Your task to perform on an android device: Is it going to rain today? Image 0: 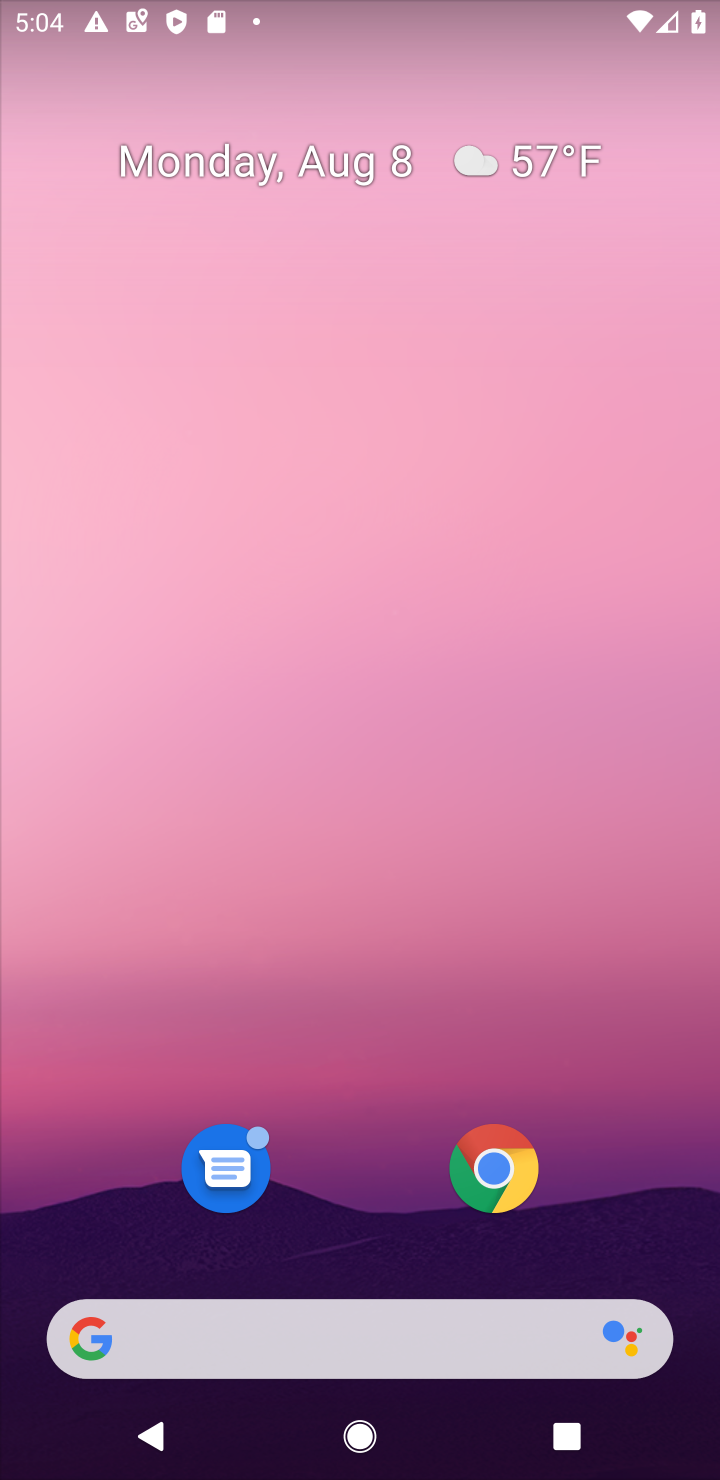
Step 0: click (507, 177)
Your task to perform on an android device: Is it going to rain today? Image 1: 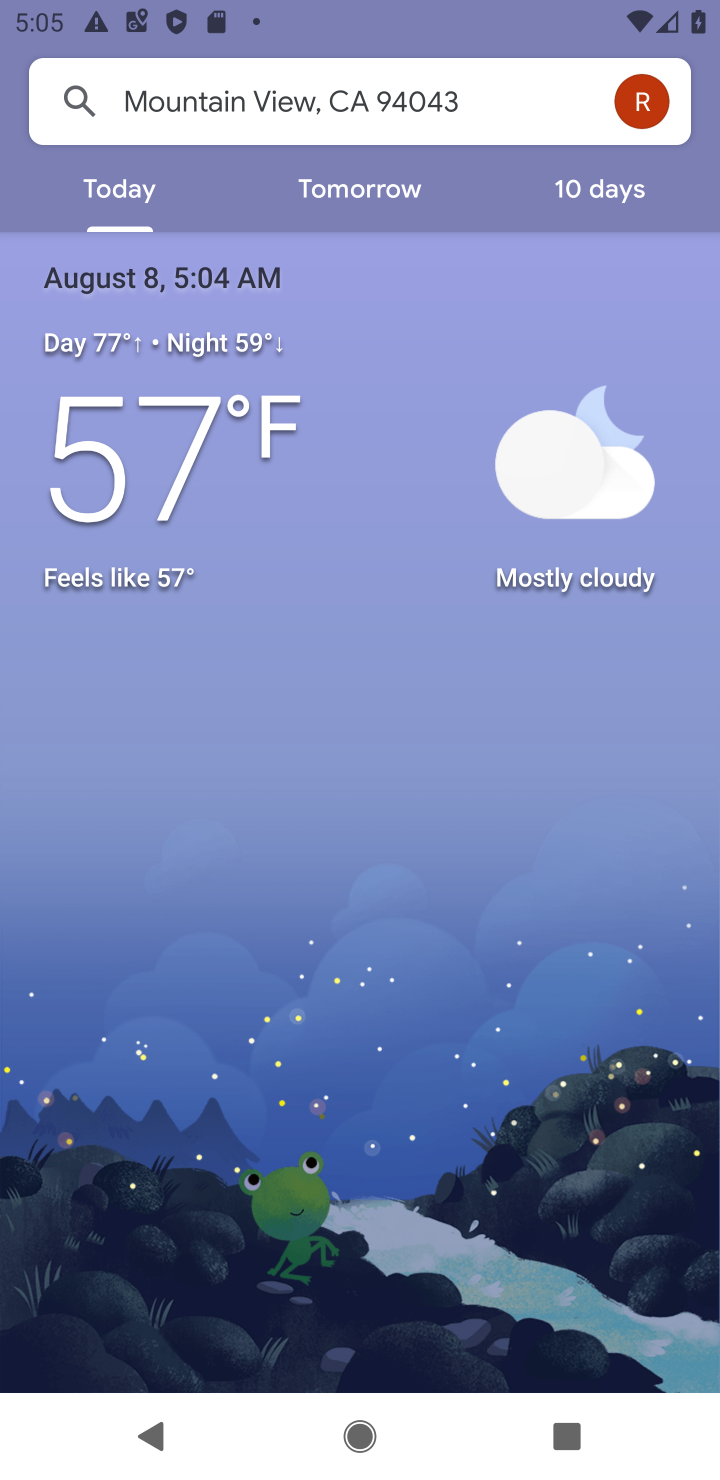
Step 1: click (105, 194)
Your task to perform on an android device: Is it going to rain today? Image 2: 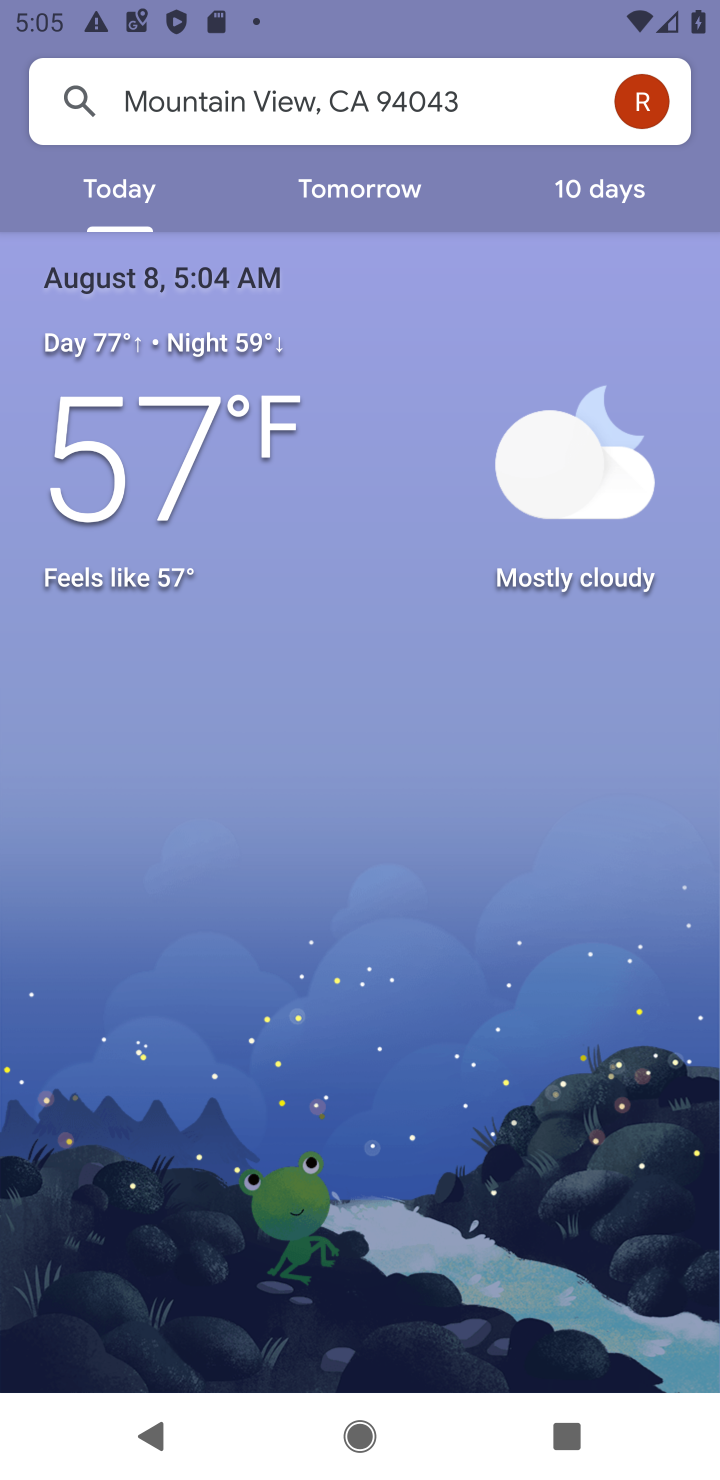
Step 2: task complete